Your task to perform on an android device: Open wifi settings Image 0: 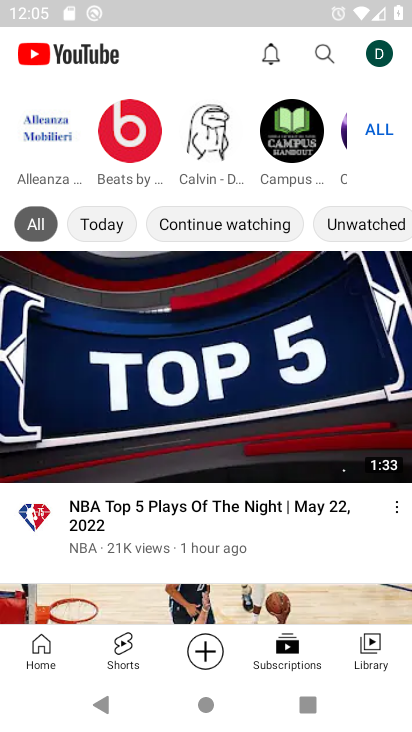
Step 0: press home button
Your task to perform on an android device: Open wifi settings Image 1: 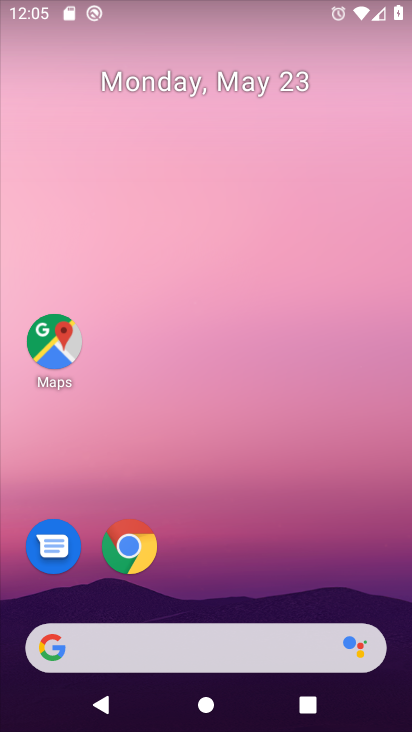
Step 1: drag from (199, 637) to (262, 4)
Your task to perform on an android device: Open wifi settings Image 2: 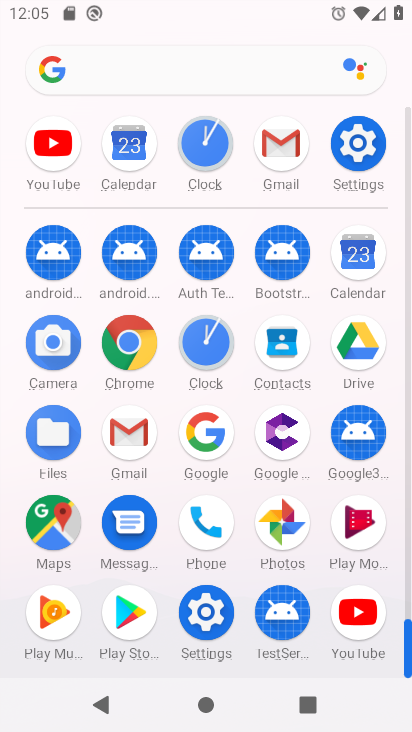
Step 2: click (374, 169)
Your task to perform on an android device: Open wifi settings Image 3: 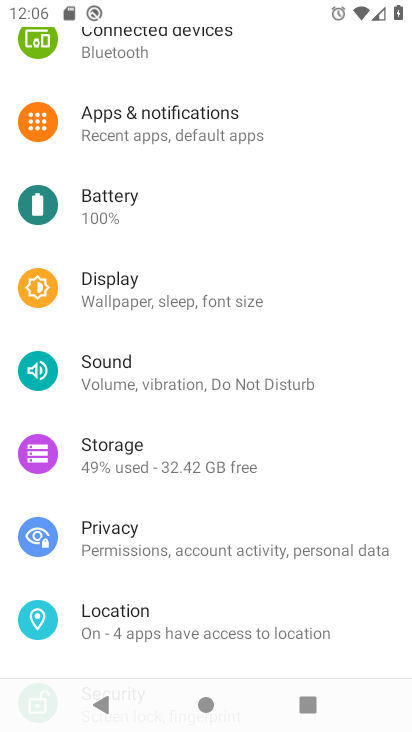
Step 3: drag from (187, 215) to (122, 724)
Your task to perform on an android device: Open wifi settings Image 4: 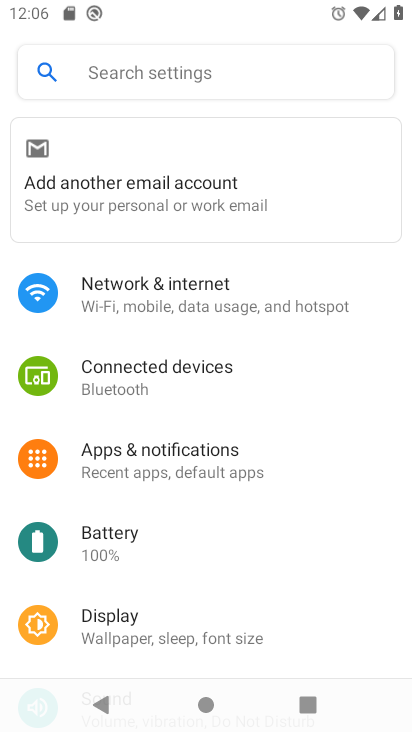
Step 4: click (191, 306)
Your task to perform on an android device: Open wifi settings Image 5: 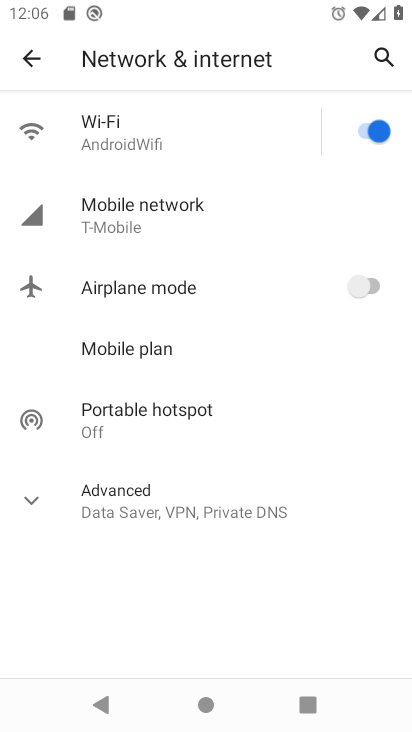
Step 5: click (197, 146)
Your task to perform on an android device: Open wifi settings Image 6: 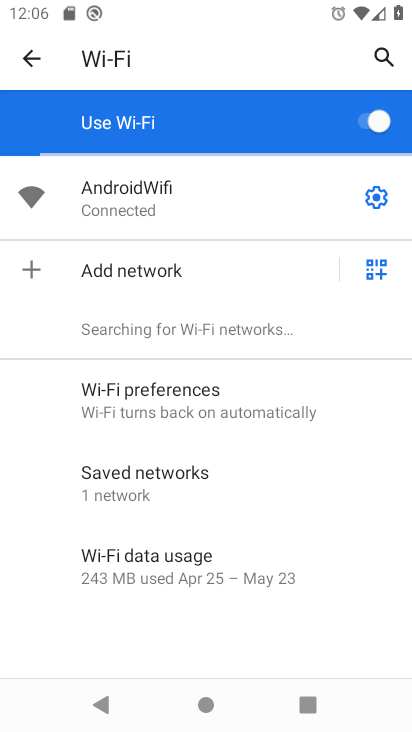
Step 6: task complete